Your task to perform on an android device: Search for "duracell triple a" on target, select the first entry, and add it to the cart. Image 0: 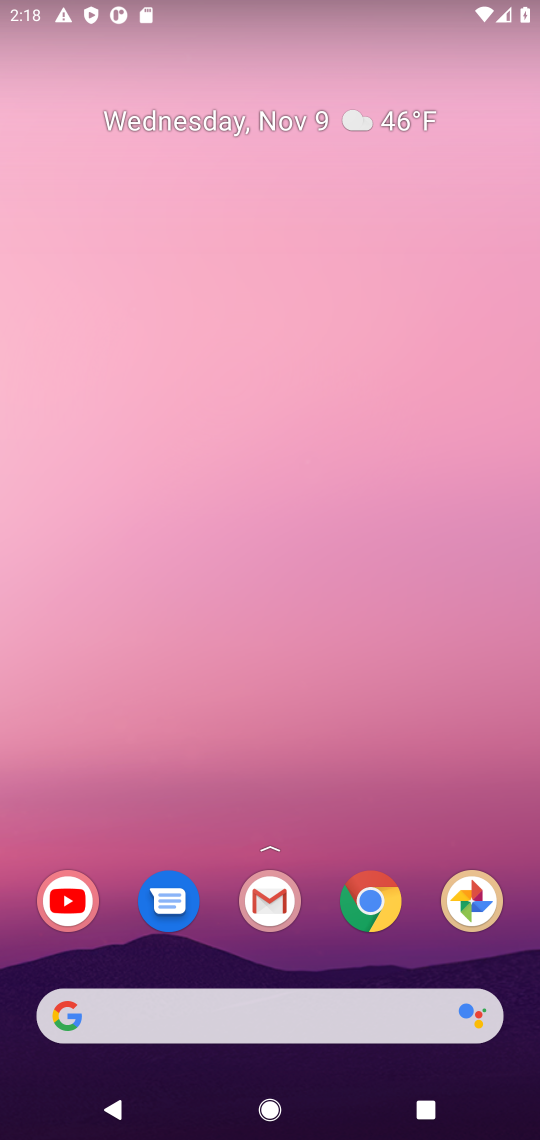
Step 0: click (371, 899)
Your task to perform on an android device: Search for "duracell triple a" on target, select the first entry, and add it to the cart. Image 1: 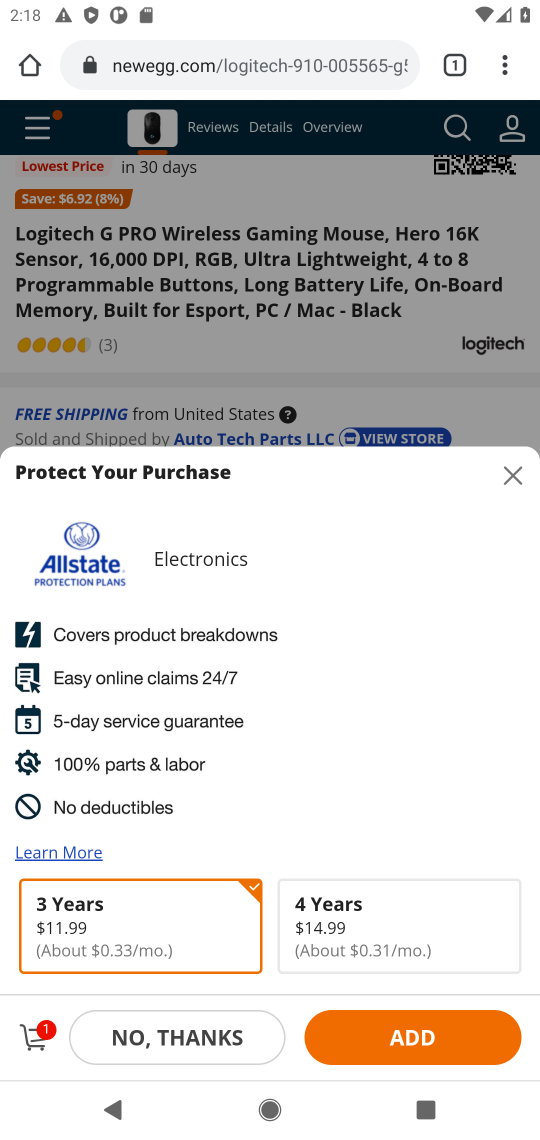
Step 1: click (342, 51)
Your task to perform on an android device: Search for "duracell triple a" on target, select the first entry, and add it to the cart. Image 2: 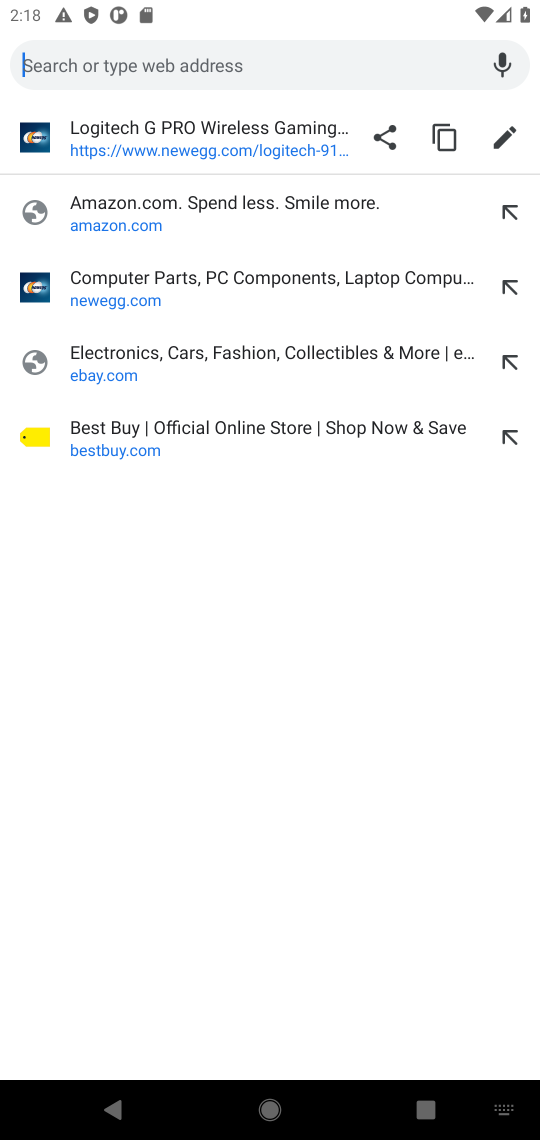
Step 2: type "target"
Your task to perform on an android device: Search for "duracell triple a" on target, select the first entry, and add it to the cart. Image 3: 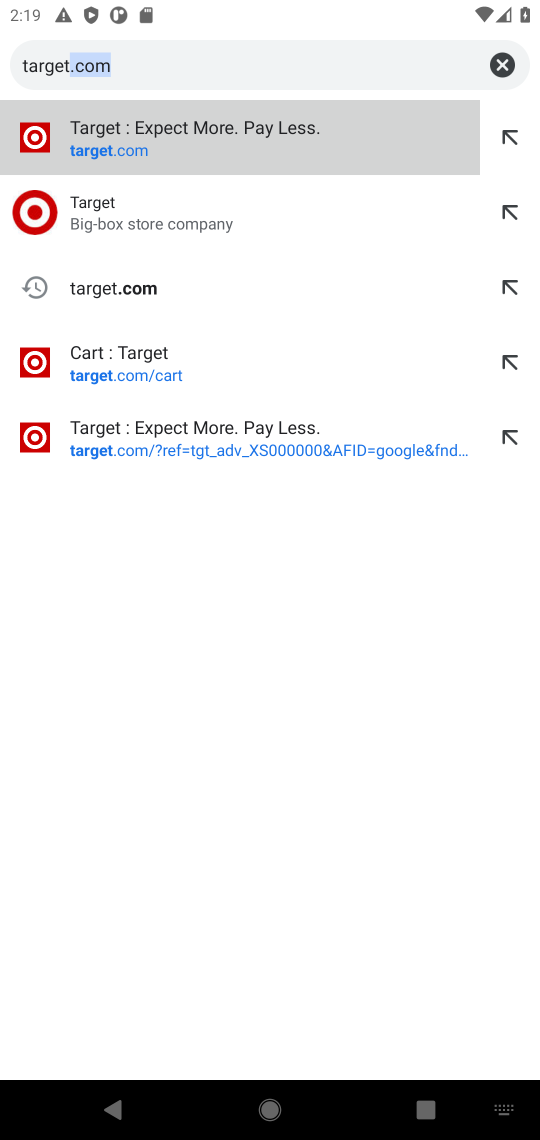
Step 3: press enter
Your task to perform on an android device: Search for "duracell triple a" on target, select the first entry, and add it to the cart. Image 4: 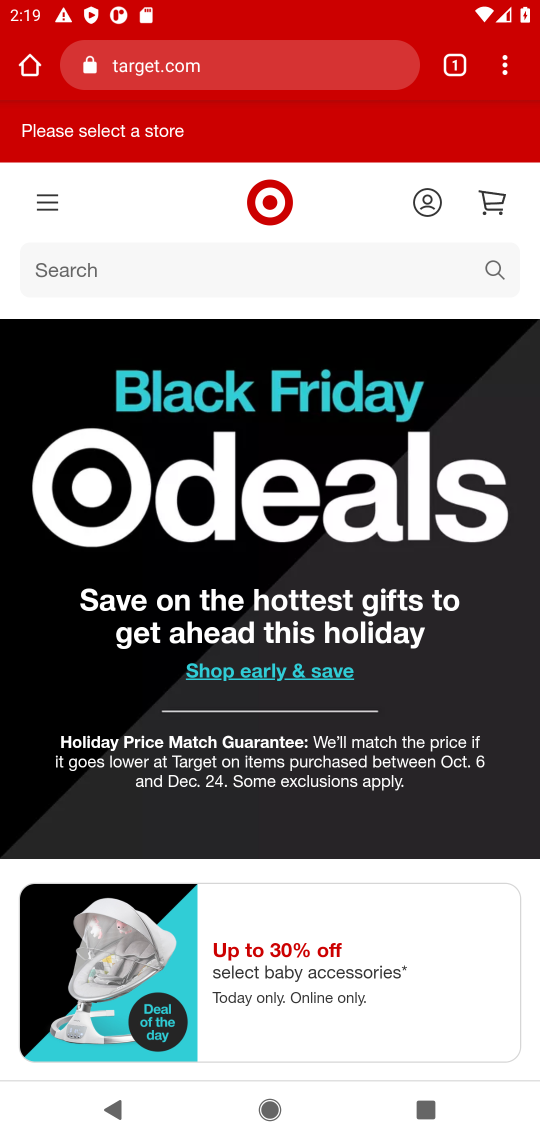
Step 4: click (501, 273)
Your task to perform on an android device: Search for "duracell triple a" on target, select the first entry, and add it to the cart. Image 5: 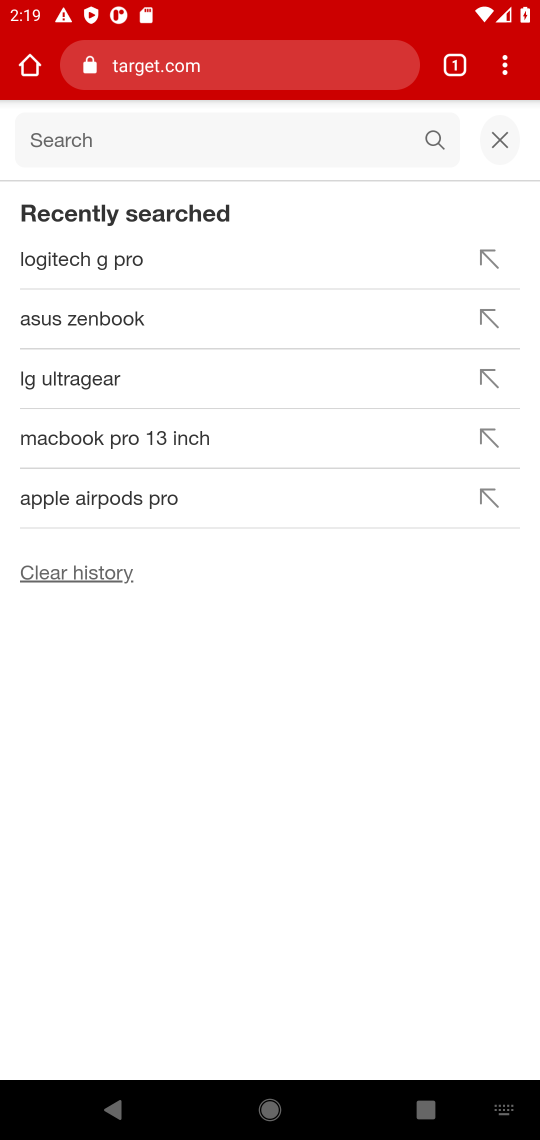
Step 5: type "duracell triple a"
Your task to perform on an android device: Search for "duracell triple a" on target, select the first entry, and add it to the cart. Image 6: 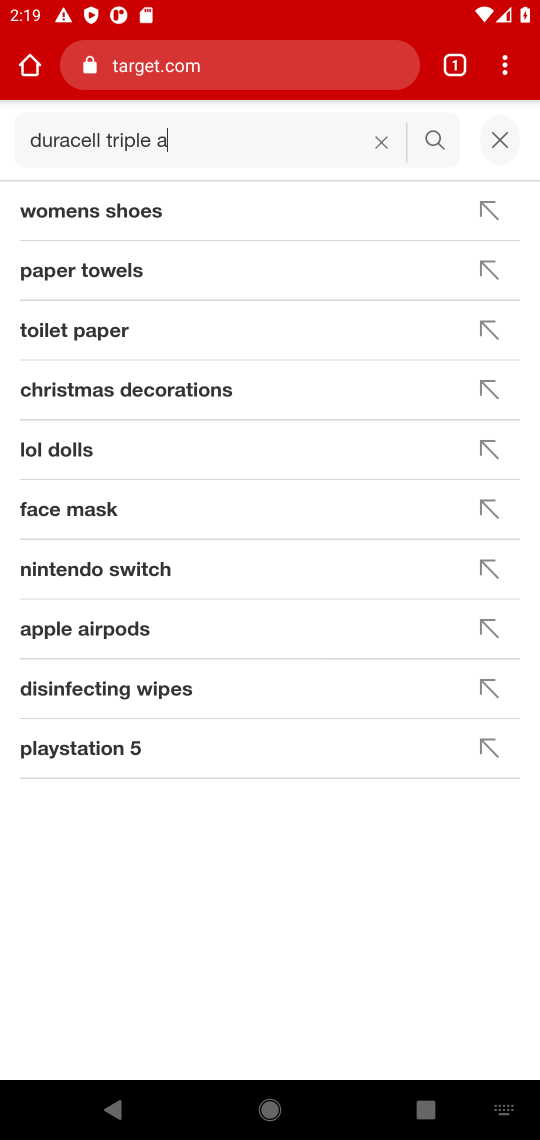
Step 6: press enter
Your task to perform on an android device: Search for "duracell triple a" on target, select the first entry, and add it to the cart. Image 7: 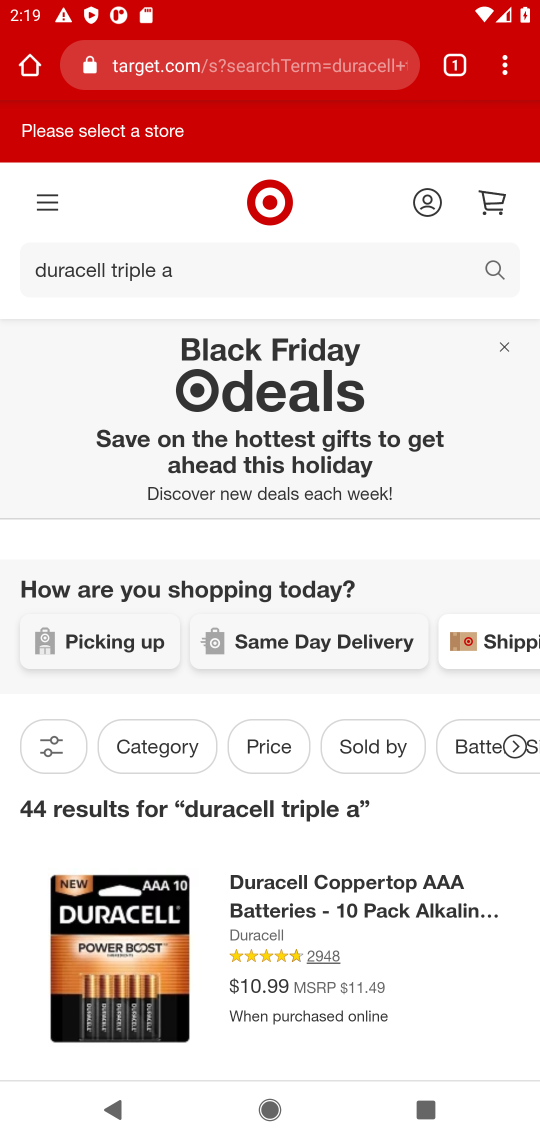
Step 7: drag from (394, 928) to (454, 587)
Your task to perform on an android device: Search for "duracell triple a" on target, select the first entry, and add it to the cart. Image 8: 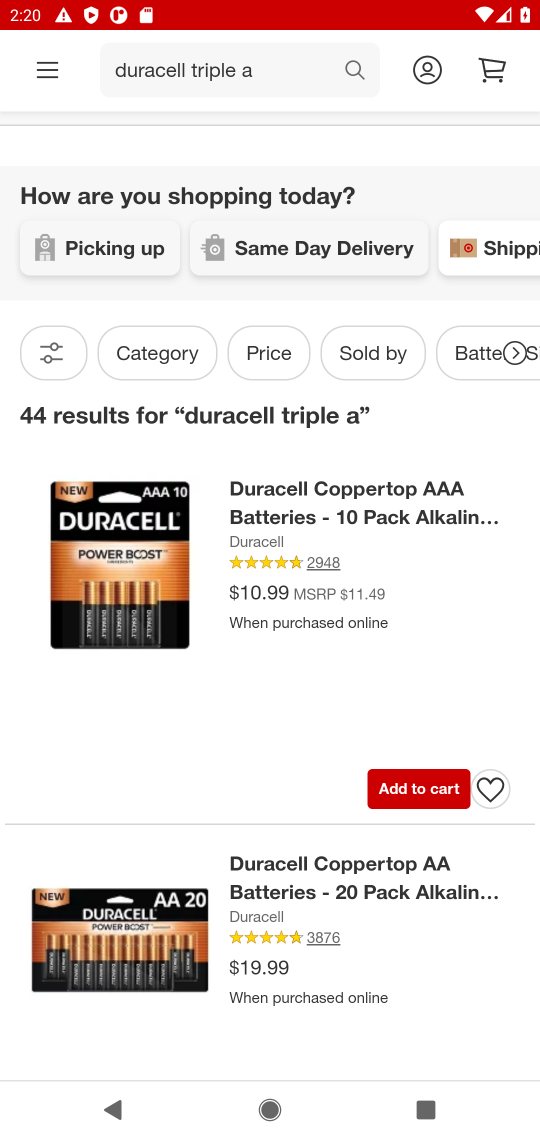
Step 8: click (132, 564)
Your task to perform on an android device: Search for "duracell triple a" on target, select the first entry, and add it to the cart. Image 9: 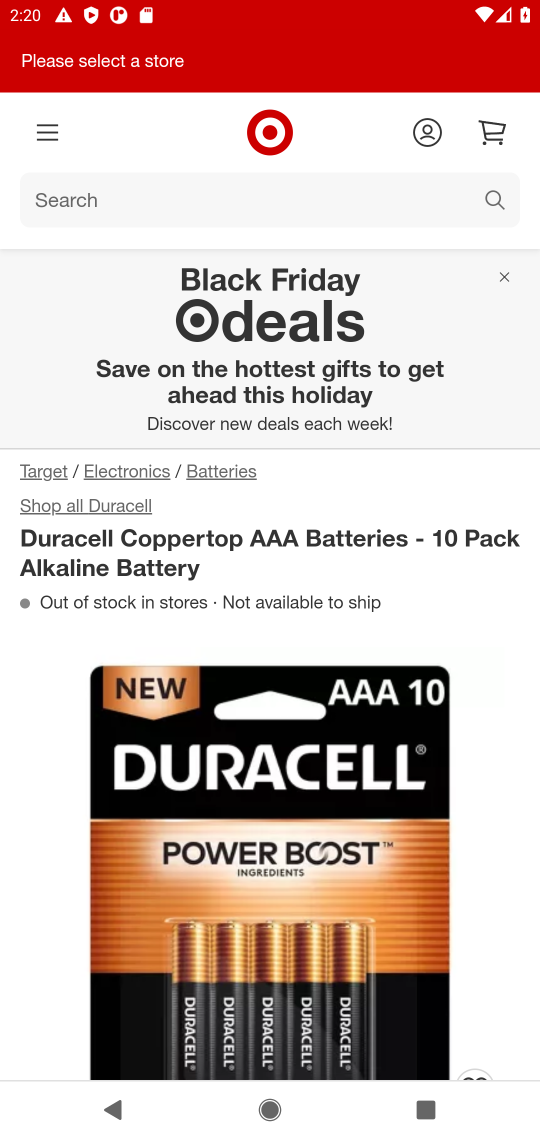
Step 9: drag from (460, 850) to (530, 363)
Your task to perform on an android device: Search for "duracell triple a" on target, select the first entry, and add it to the cart. Image 10: 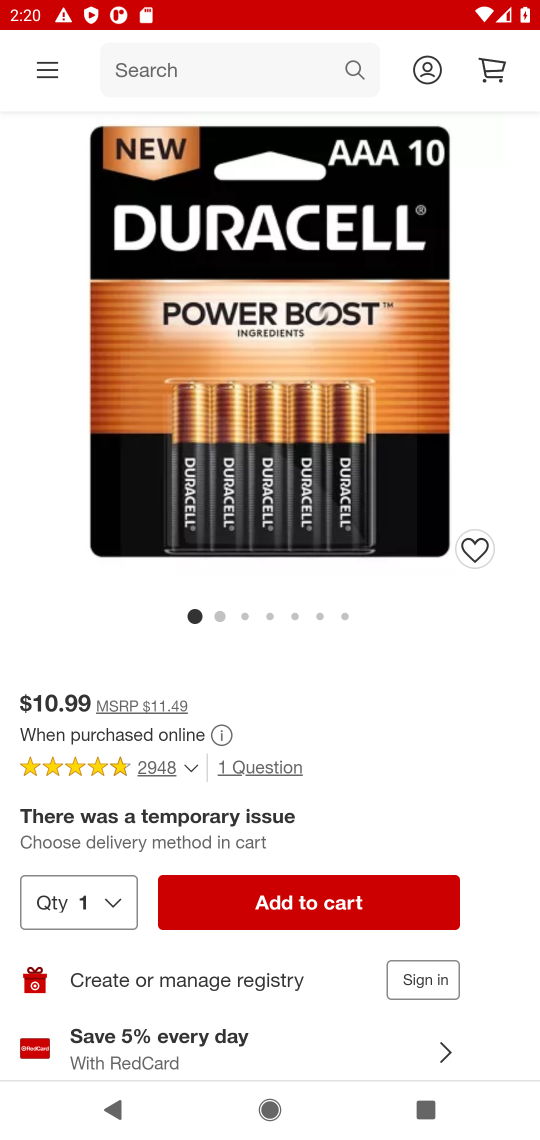
Step 10: click (418, 894)
Your task to perform on an android device: Search for "duracell triple a" on target, select the first entry, and add it to the cart. Image 11: 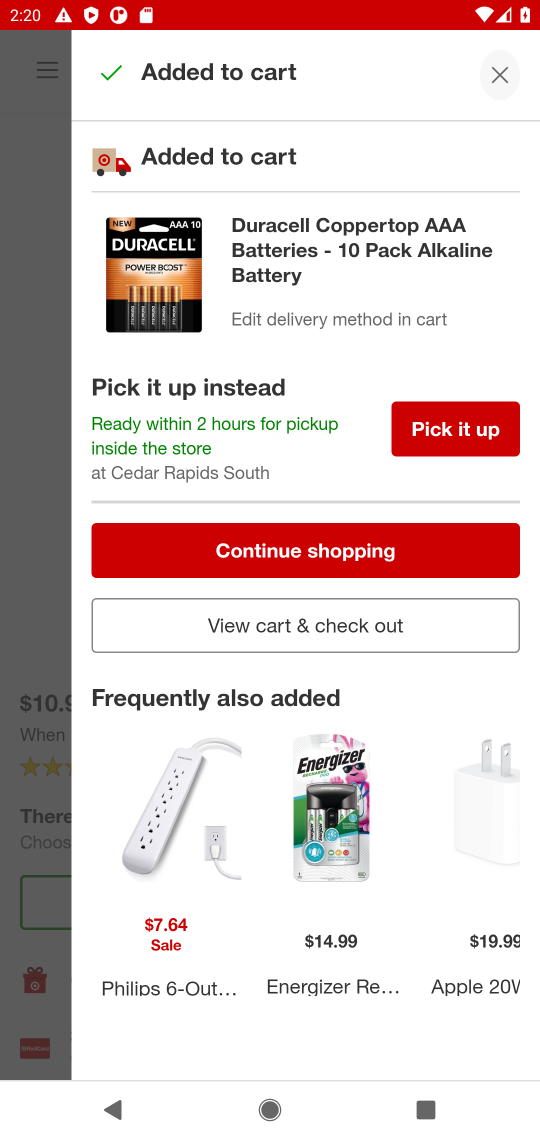
Step 11: task complete